Your task to perform on an android device: check android version Image 0: 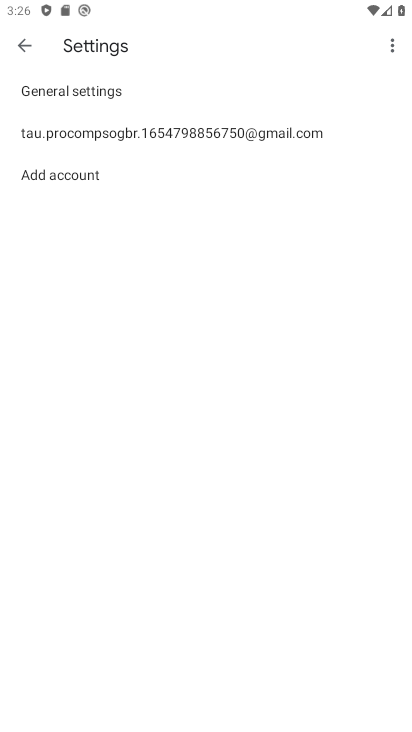
Step 0: press home button
Your task to perform on an android device: check android version Image 1: 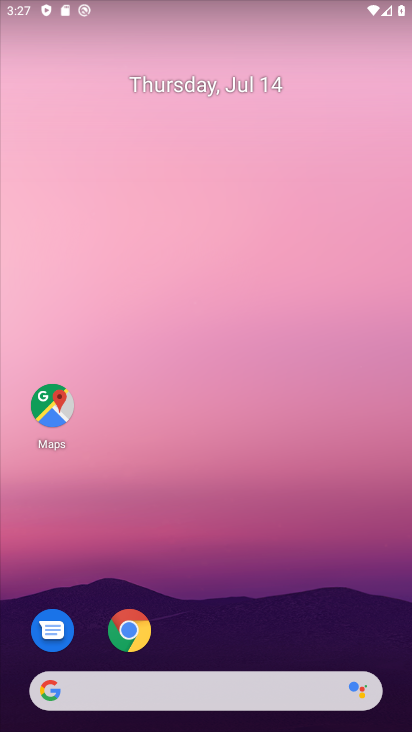
Step 1: drag from (227, 636) to (226, 166)
Your task to perform on an android device: check android version Image 2: 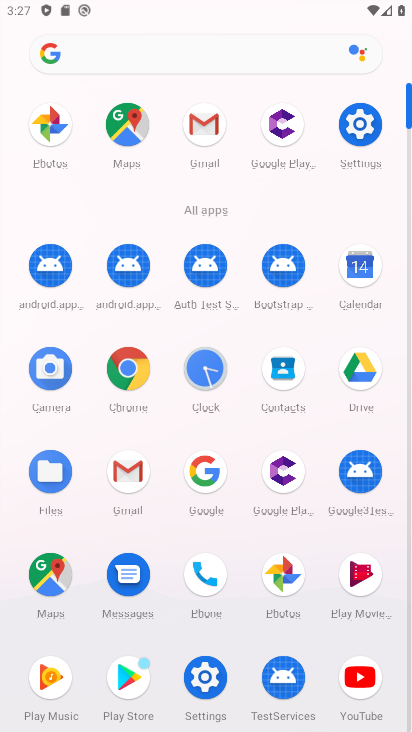
Step 2: click (212, 670)
Your task to perform on an android device: check android version Image 3: 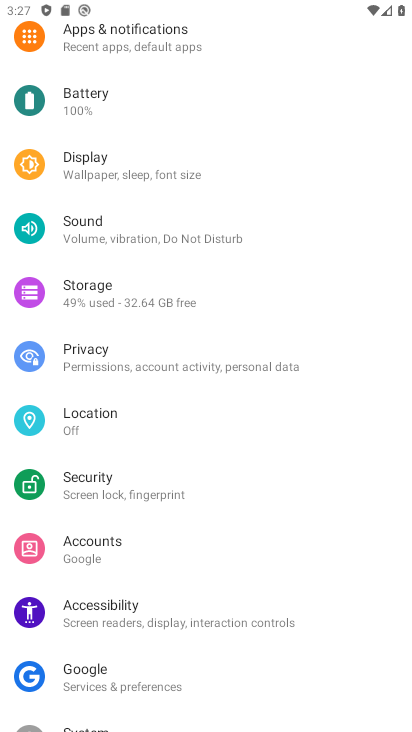
Step 3: drag from (104, 668) to (97, 251)
Your task to perform on an android device: check android version Image 4: 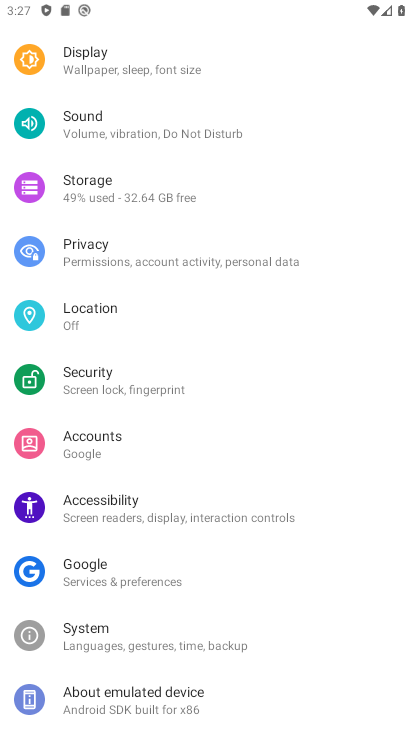
Step 4: click (111, 695)
Your task to perform on an android device: check android version Image 5: 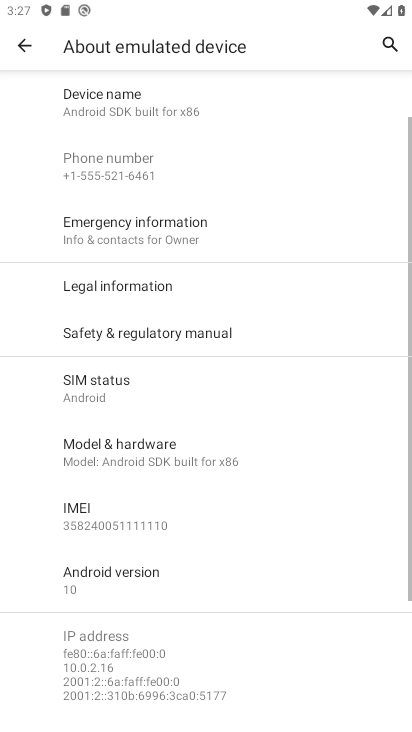
Step 5: click (108, 572)
Your task to perform on an android device: check android version Image 6: 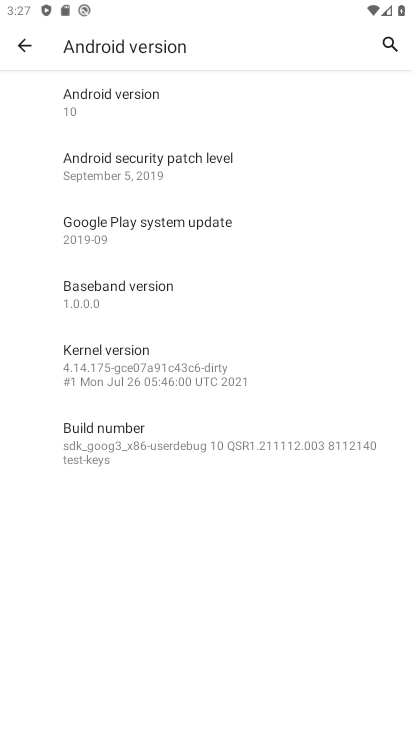
Step 6: task complete